Your task to perform on an android device: What's on my calendar tomorrow? Image 0: 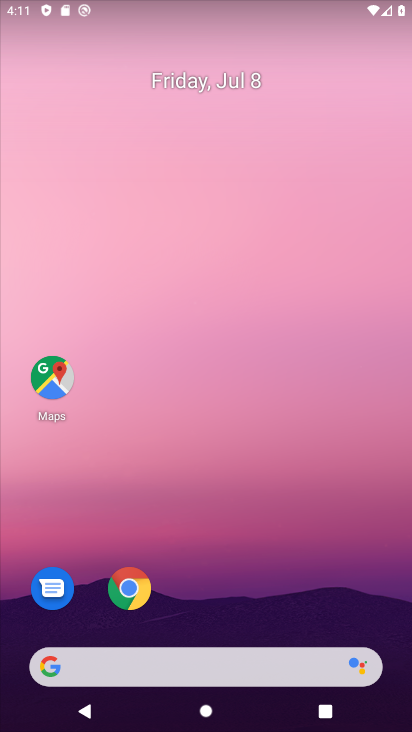
Step 0: drag from (199, 239) to (195, 204)
Your task to perform on an android device: What's on my calendar tomorrow? Image 1: 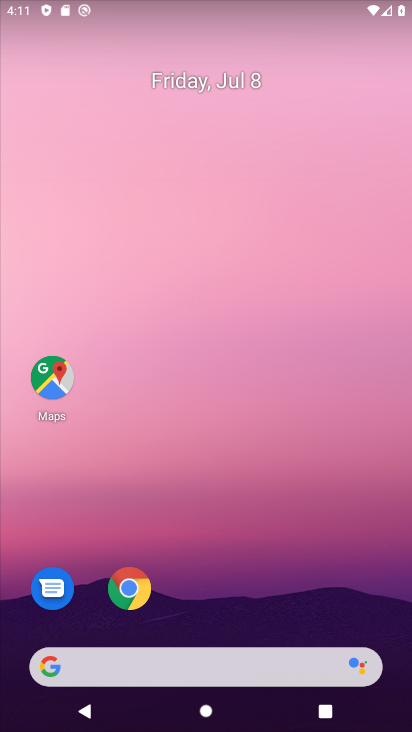
Step 1: click (177, 131)
Your task to perform on an android device: What's on my calendar tomorrow? Image 2: 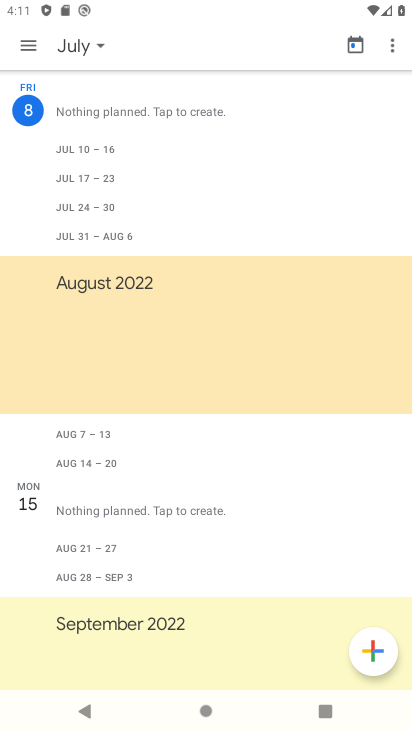
Step 2: drag from (210, 402) to (183, 92)
Your task to perform on an android device: What's on my calendar tomorrow? Image 3: 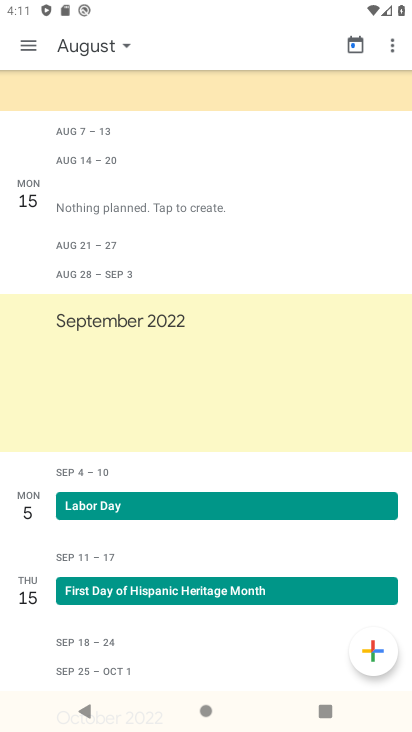
Step 3: drag from (234, 310) to (226, 189)
Your task to perform on an android device: What's on my calendar tomorrow? Image 4: 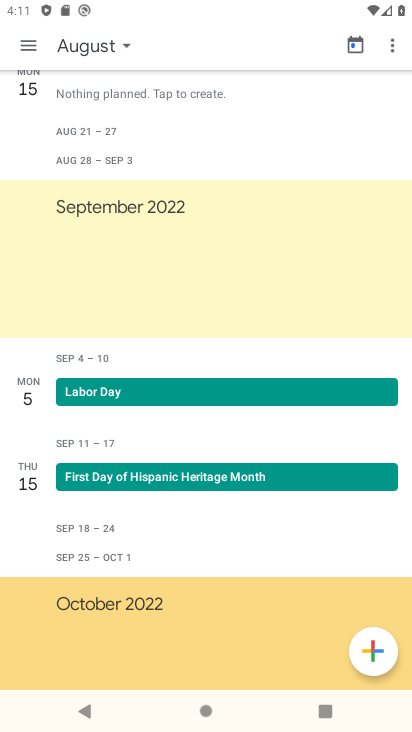
Step 4: drag from (192, 594) to (144, 130)
Your task to perform on an android device: What's on my calendar tomorrow? Image 5: 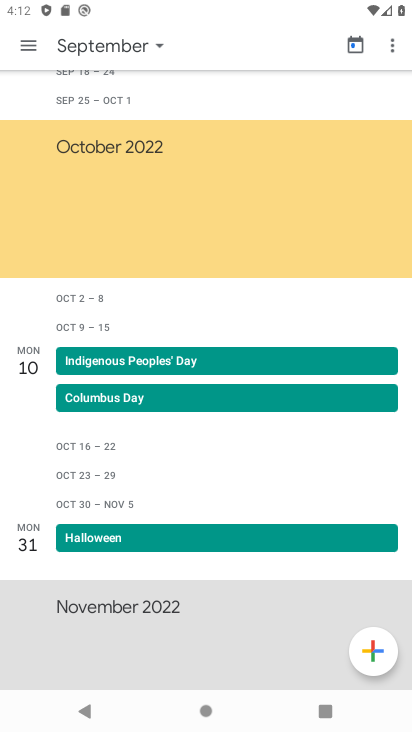
Step 5: drag from (124, 217) to (194, 548)
Your task to perform on an android device: What's on my calendar tomorrow? Image 6: 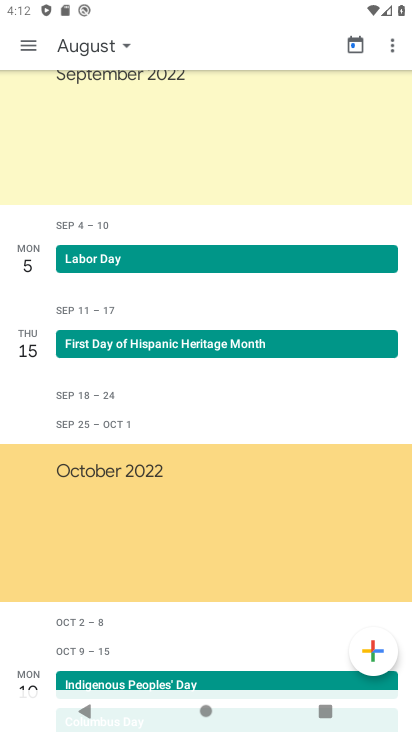
Step 6: drag from (149, 265) to (174, 382)
Your task to perform on an android device: What's on my calendar tomorrow? Image 7: 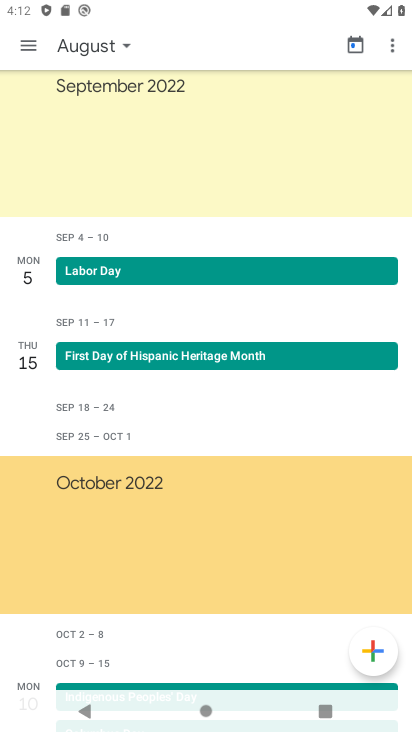
Step 7: click (181, 644)
Your task to perform on an android device: What's on my calendar tomorrow? Image 8: 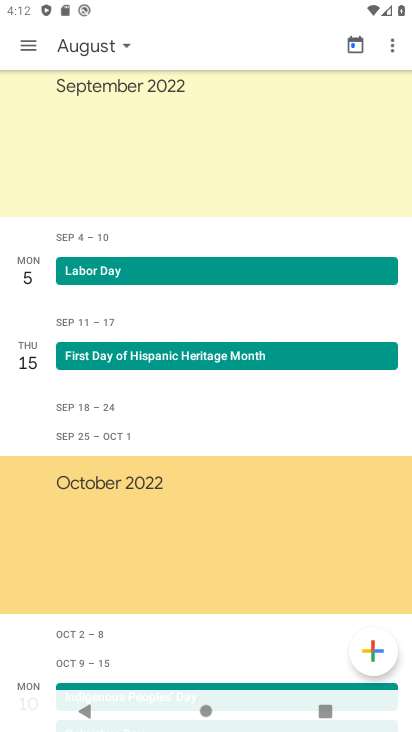
Step 8: drag from (122, 202) to (207, 598)
Your task to perform on an android device: What's on my calendar tomorrow? Image 9: 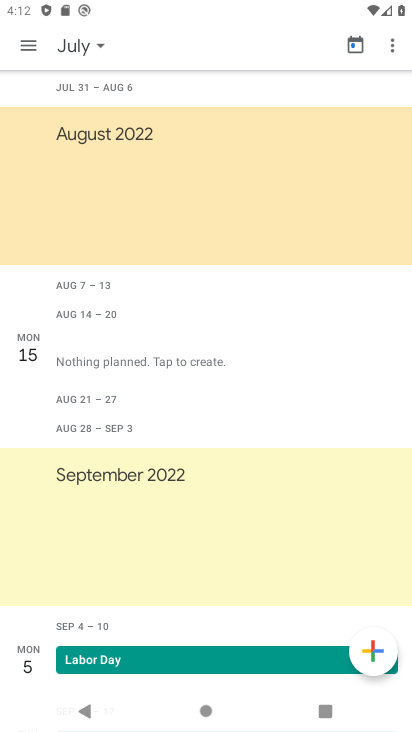
Step 9: drag from (183, 353) to (192, 549)
Your task to perform on an android device: What's on my calendar tomorrow? Image 10: 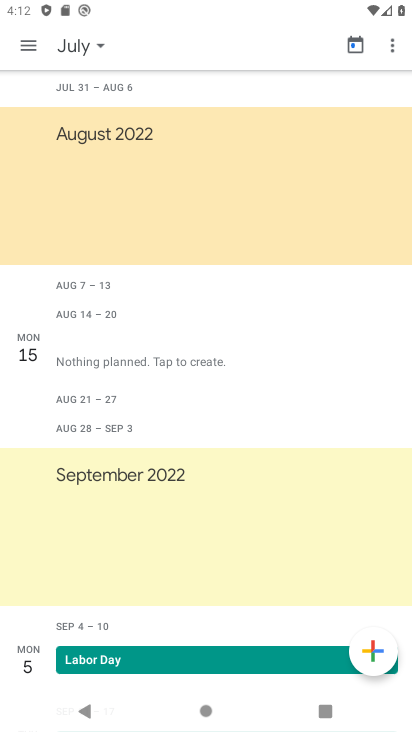
Step 10: drag from (176, 377) to (178, 514)
Your task to perform on an android device: What's on my calendar tomorrow? Image 11: 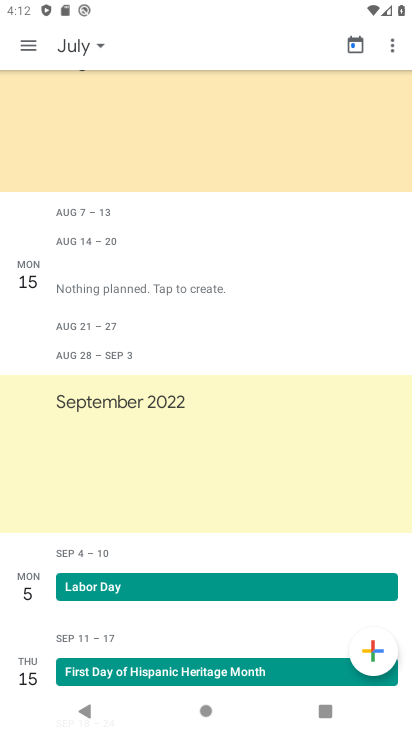
Step 11: drag from (199, 553) to (195, 630)
Your task to perform on an android device: What's on my calendar tomorrow? Image 12: 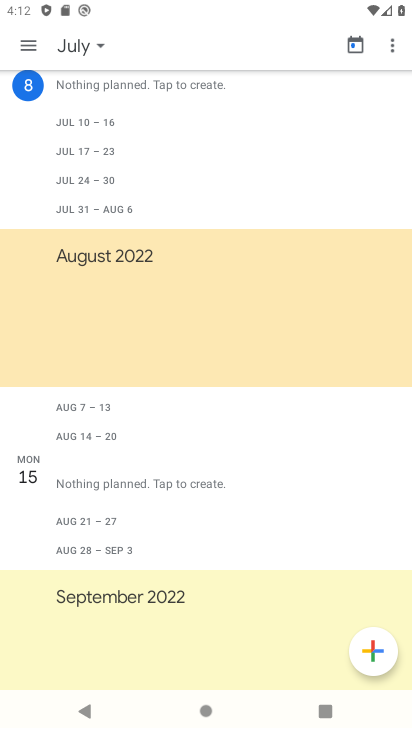
Step 12: drag from (151, 473) to (151, 141)
Your task to perform on an android device: What's on my calendar tomorrow? Image 13: 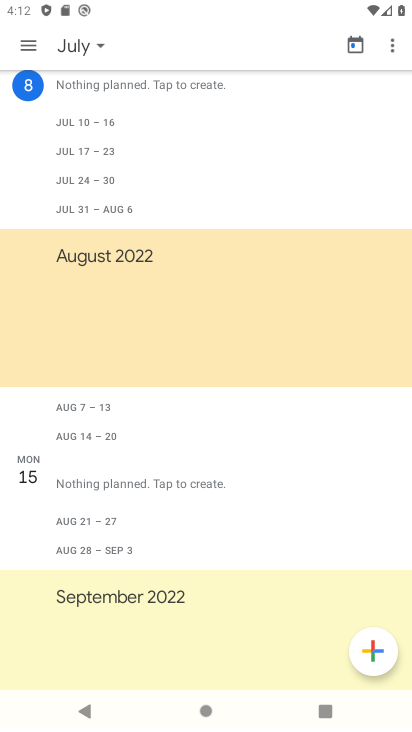
Step 13: drag from (153, 322) to (118, 720)
Your task to perform on an android device: What's on my calendar tomorrow? Image 14: 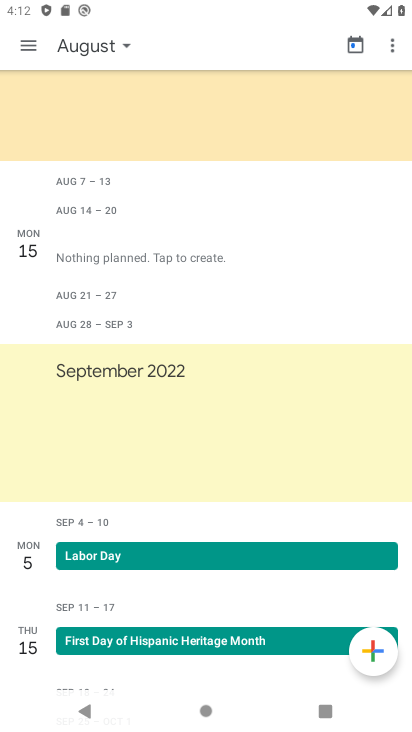
Step 14: click (122, 55)
Your task to perform on an android device: What's on my calendar tomorrow? Image 15: 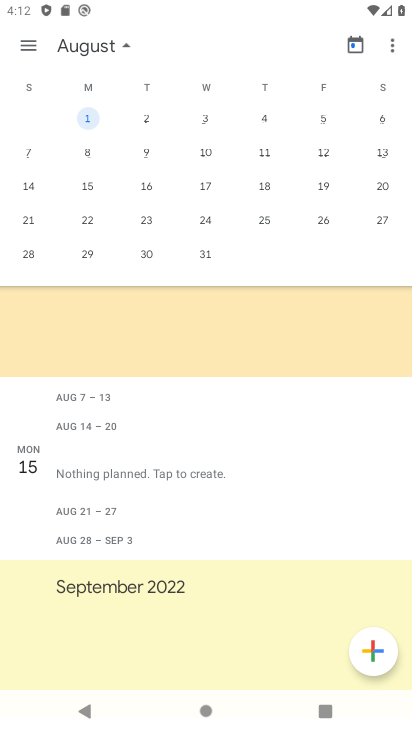
Step 15: drag from (58, 191) to (408, 252)
Your task to perform on an android device: What's on my calendar tomorrow? Image 16: 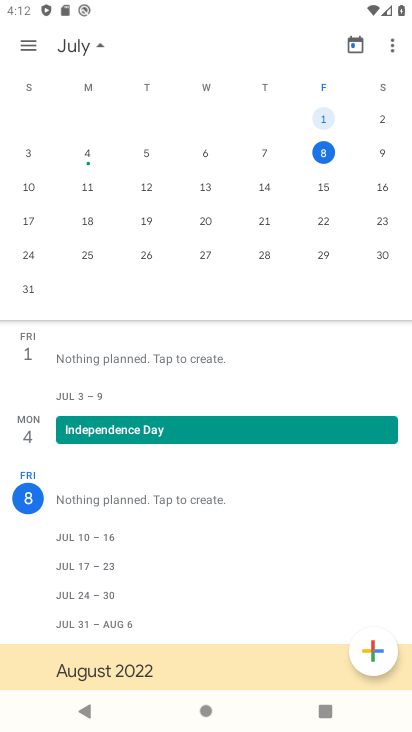
Step 16: click (380, 150)
Your task to perform on an android device: What's on my calendar tomorrow? Image 17: 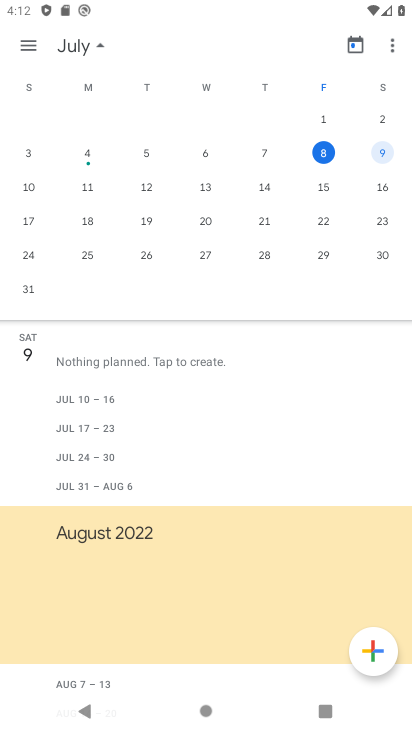
Step 17: click (390, 159)
Your task to perform on an android device: What's on my calendar tomorrow? Image 18: 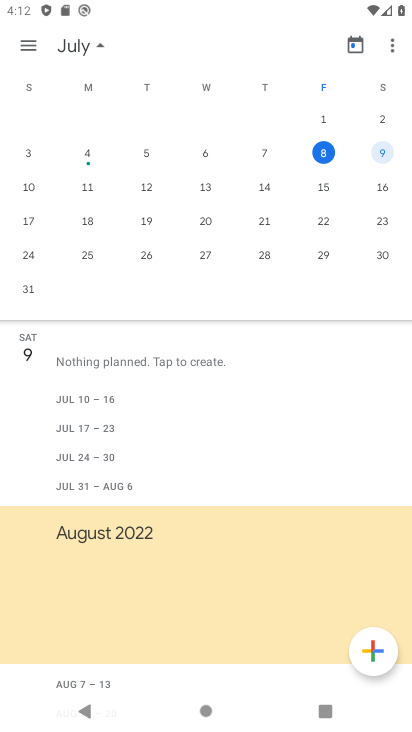
Step 18: task complete